Your task to perform on an android device: Open Wikipedia Image 0: 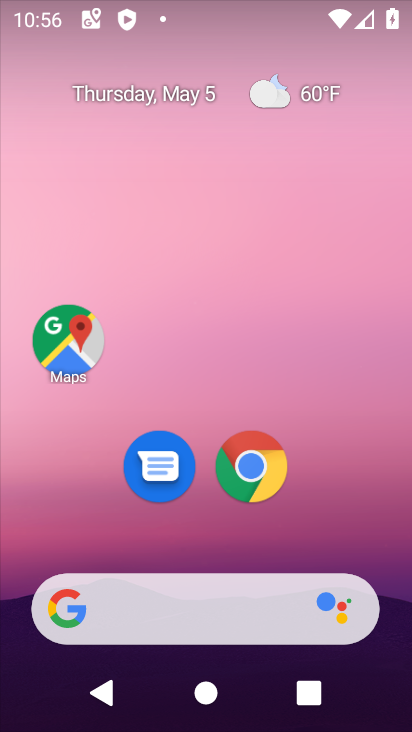
Step 0: drag from (155, 524) to (206, 189)
Your task to perform on an android device: Open Wikipedia Image 1: 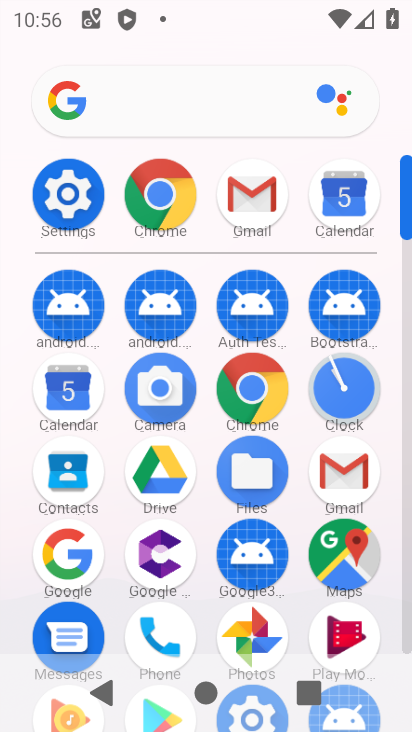
Step 1: click (60, 555)
Your task to perform on an android device: Open Wikipedia Image 2: 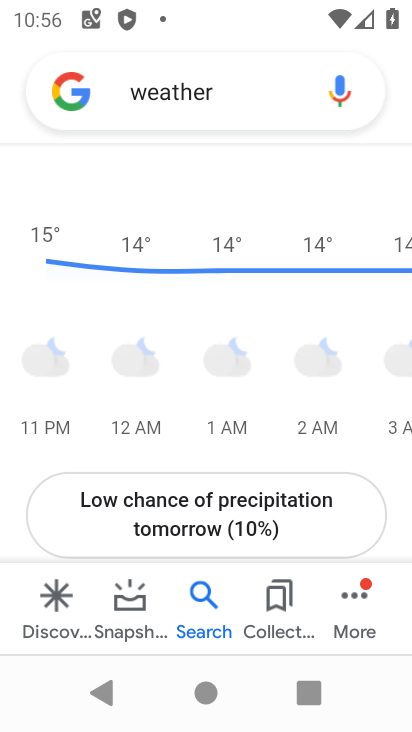
Step 2: click (236, 82)
Your task to perform on an android device: Open Wikipedia Image 3: 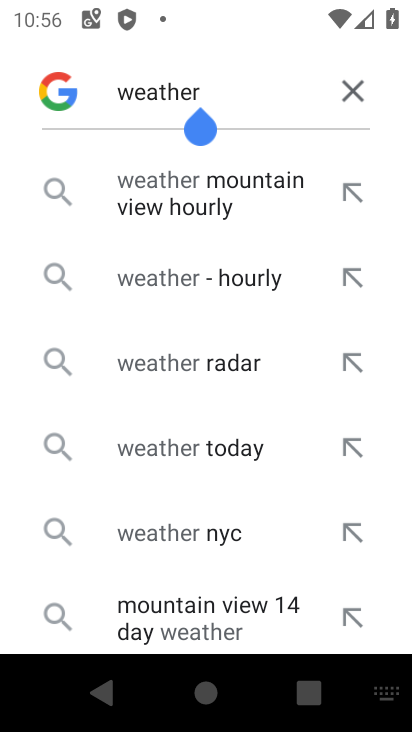
Step 3: click (359, 89)
Your task to perform on an android device: Open Wikipedia Image 4: 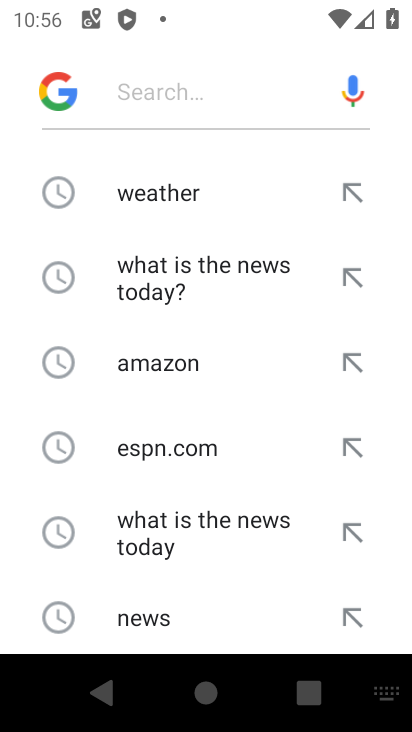
Step 4: drag from (247, 600) to (221, 262)
Your task to perform on an android device: Open Wikipedia Image 5: 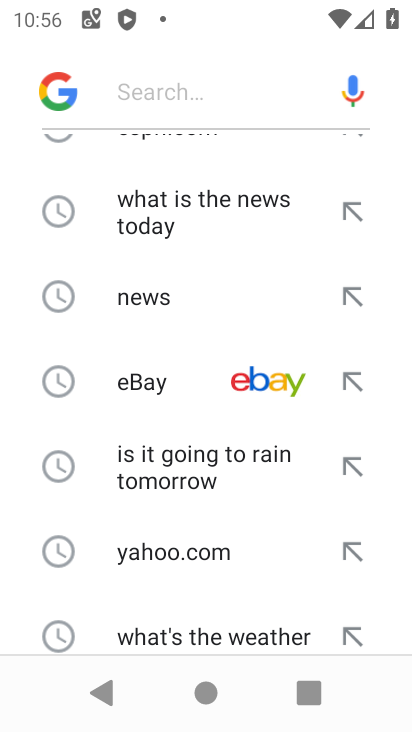
Step 5: drag from (200, 597) to (191, 281)
Your task to perform on an android device: Open Wikipedia Image 6: 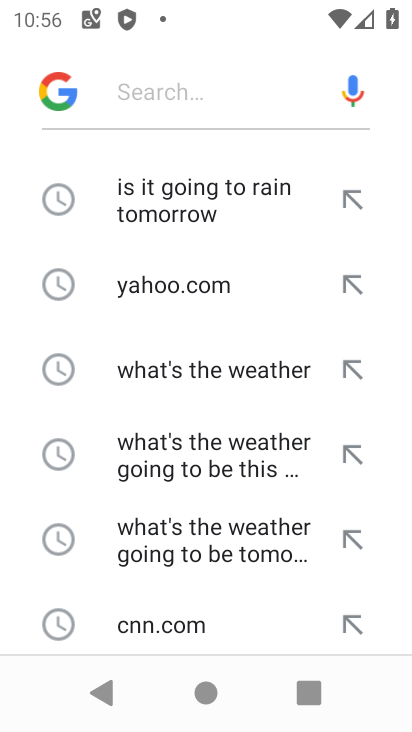
Step 6: drag from (181, 579) to (204, 248)
Your task to perform on an android device: Open Wikipedia Image 7: 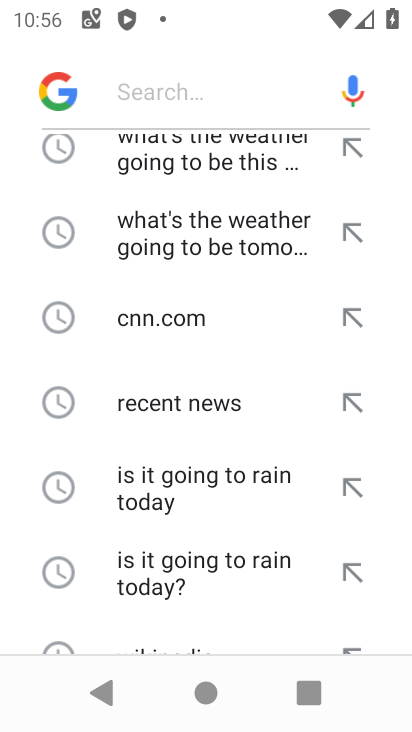
Step 7: drag from (202, 589) to (232, 276)
Your task to perform on an android device: Open Wikipedia Image 8: 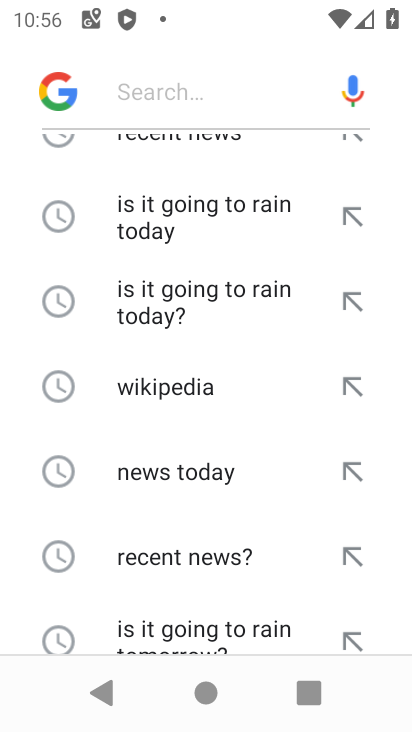
Step 8: click (148, 384)
Your task to perform on an android device: Open Wikipedia Image 9: 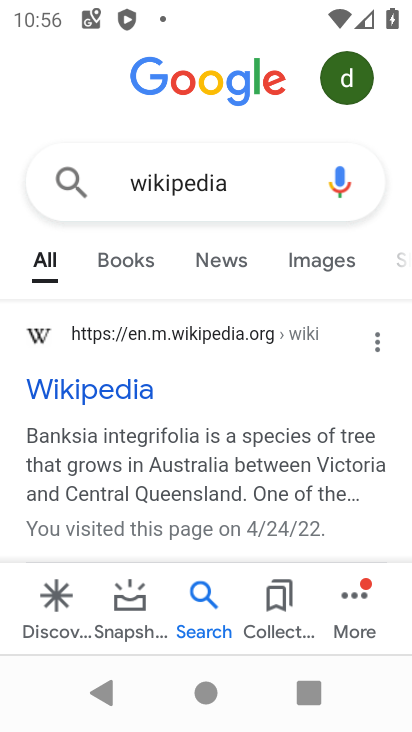
Step 9: task complete